Your task to perform on an android device: Go to accessibility settings Image 0: 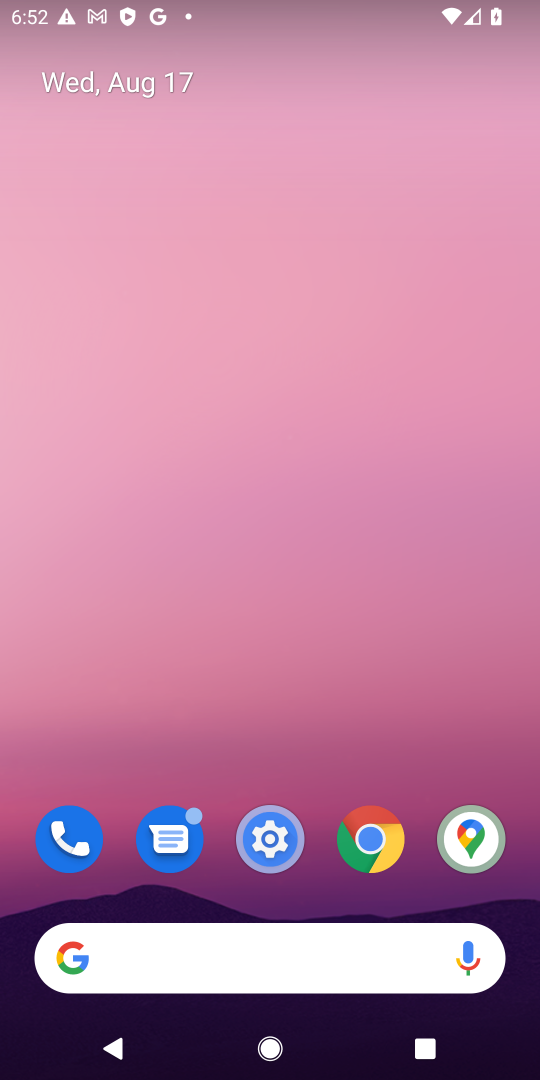
Step 0: click (512, 1063)
Your task to perform on an android device: Go to accessibility settings Image 1: 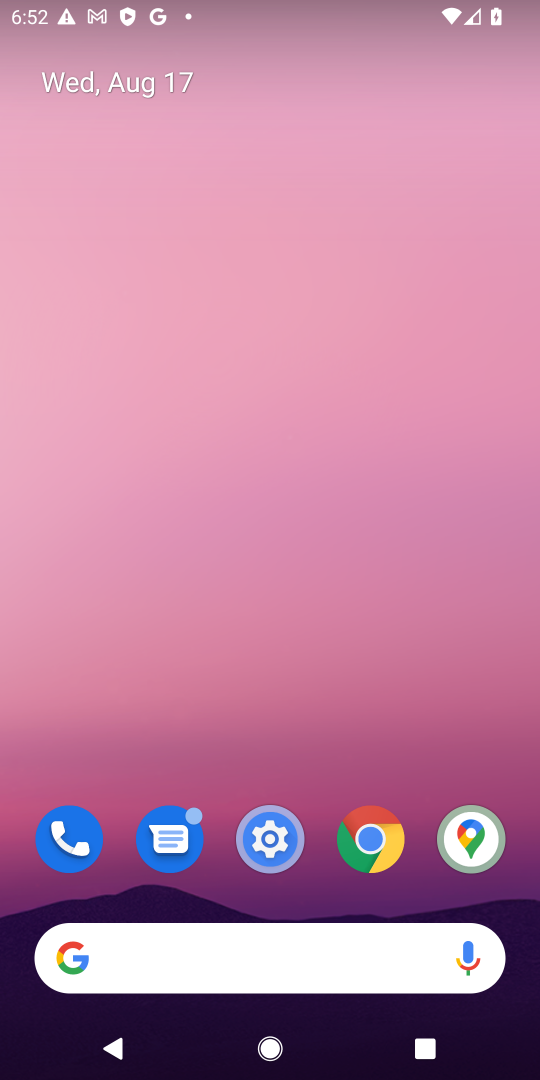
Step 1: click (283, 846)
Your task to perform on an android device: Go to accessibility settings Image 2: 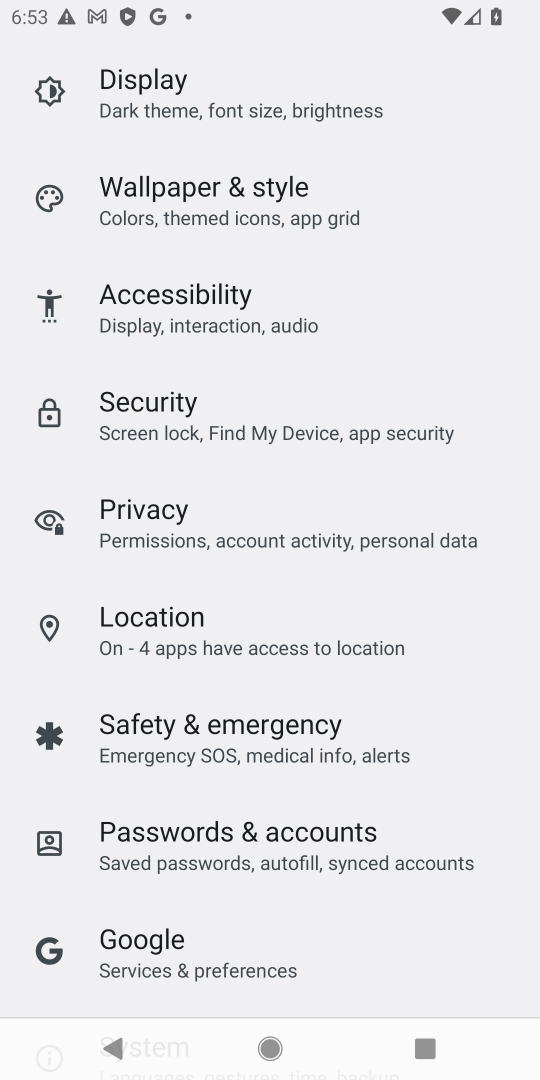
Step 2: click (124, 295)
Your task to perform on an android device: Go to accessibility settings Image 3: 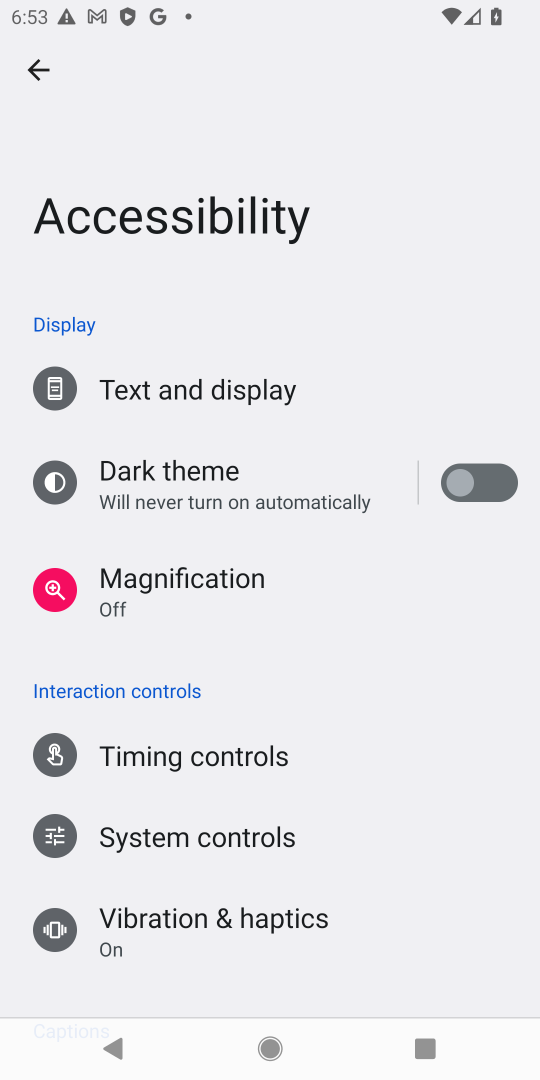
Step 3: task complete